Your task to perform on an android device: delete a single message in the gmail app Image 0: 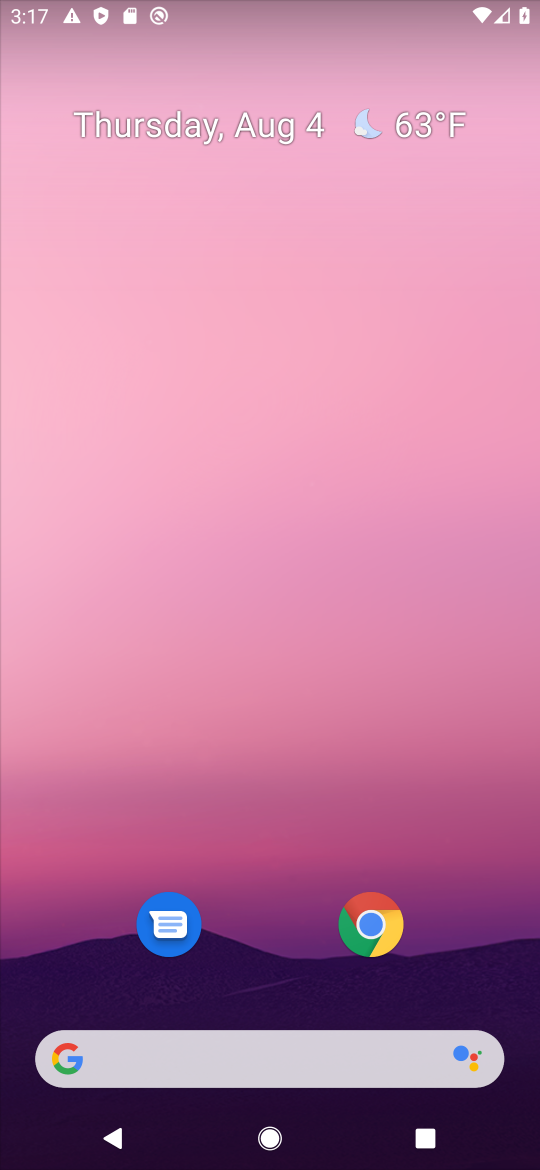
Step 0: drag from (258, 943) to (206, 6)
Your task to perform on an android device: delete a single message in the gmail app Image 1: 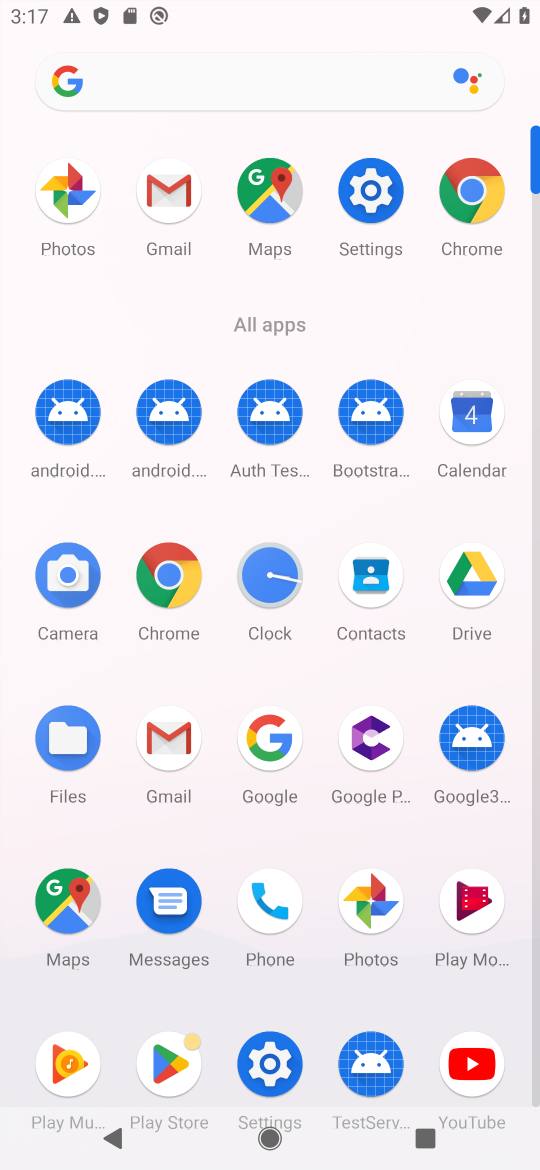
Step 1: click (167, 203)
Your task to perform on an android device: delete a single message in the gmail app Image 2: 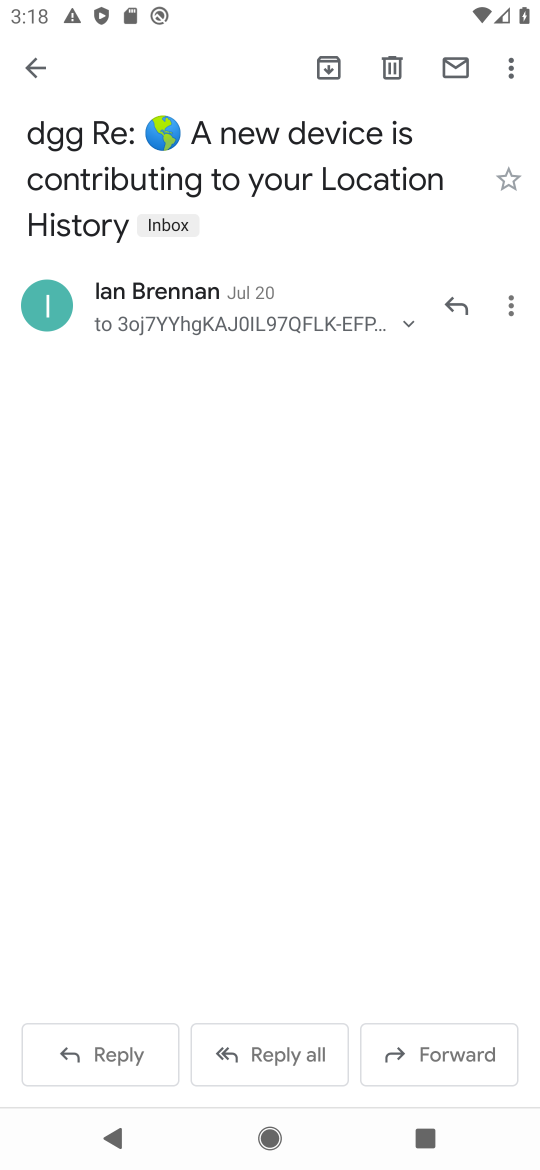
Step 2: click (387, 66)
Your task to perform on an android device: delete a single message in the gmail app Image 3: 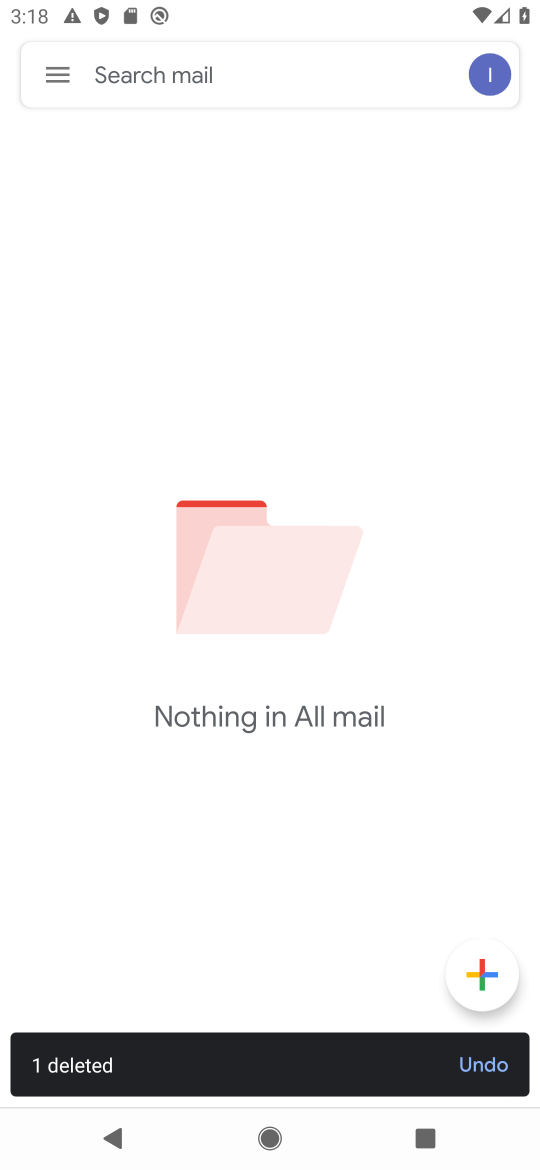
Step 3: task complete